Your task to perform on an android device: Search for the new ikea dresser Image 0: 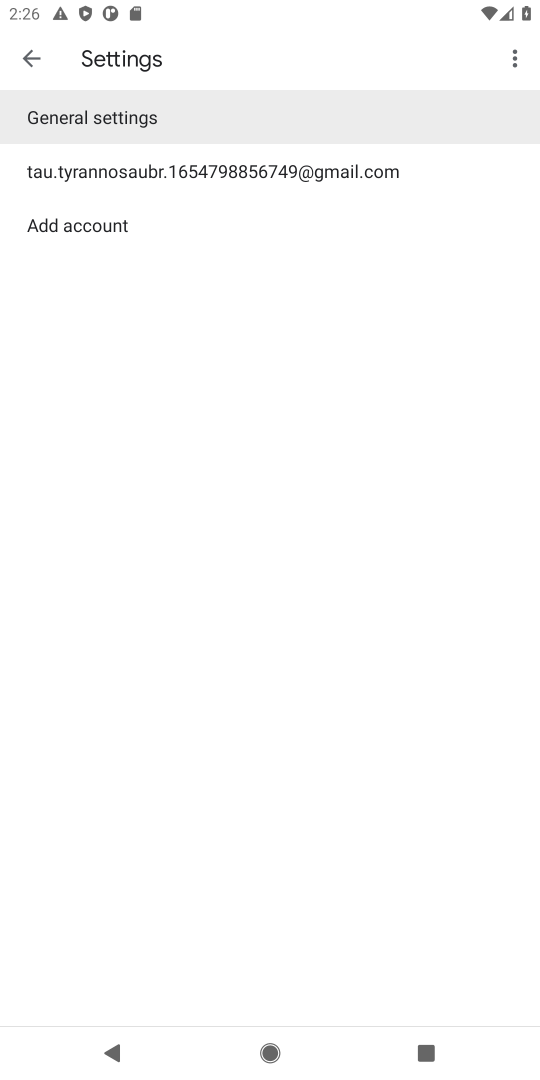
Step 0: press home button
Your task to perform on an android device: Search for the new ikea dresser Image 1: 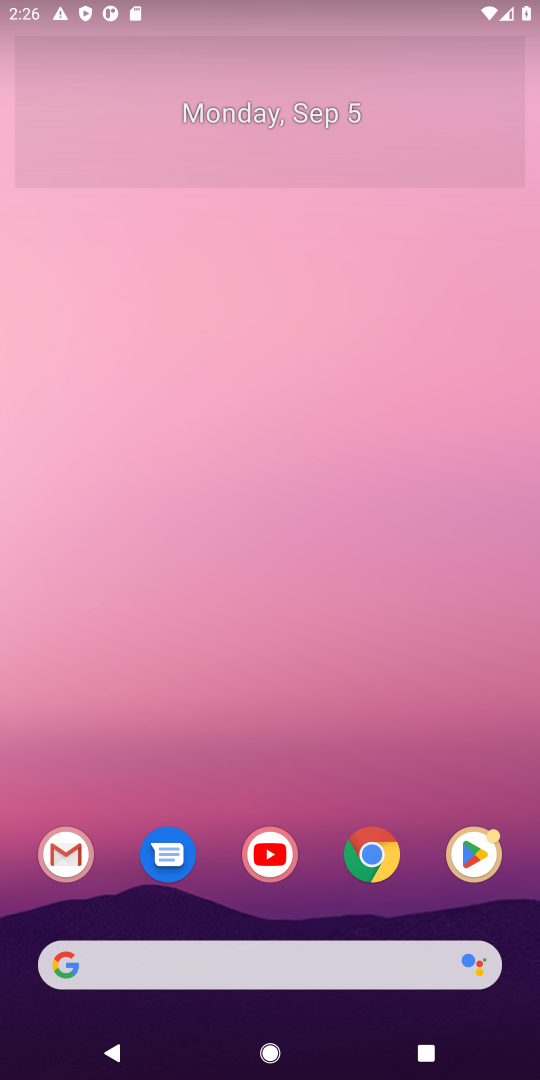
Step 1: click (384, 973)
Your task to perform on an android device: Search for the new ikea dresser Image 2: 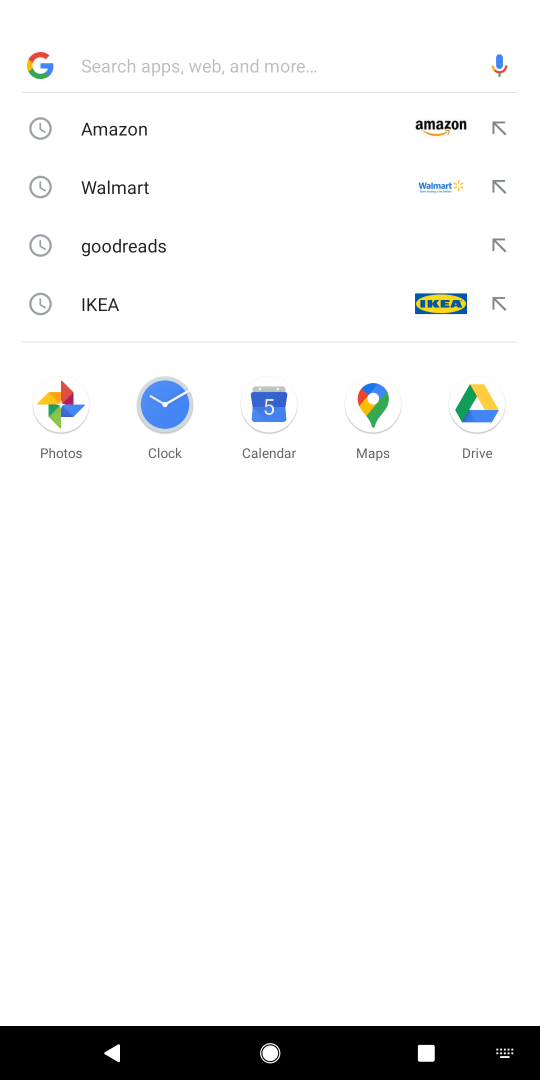
Step 2: type "ikea"
Your task to perform on an android device: Search for the new ikea dresser Image 3: 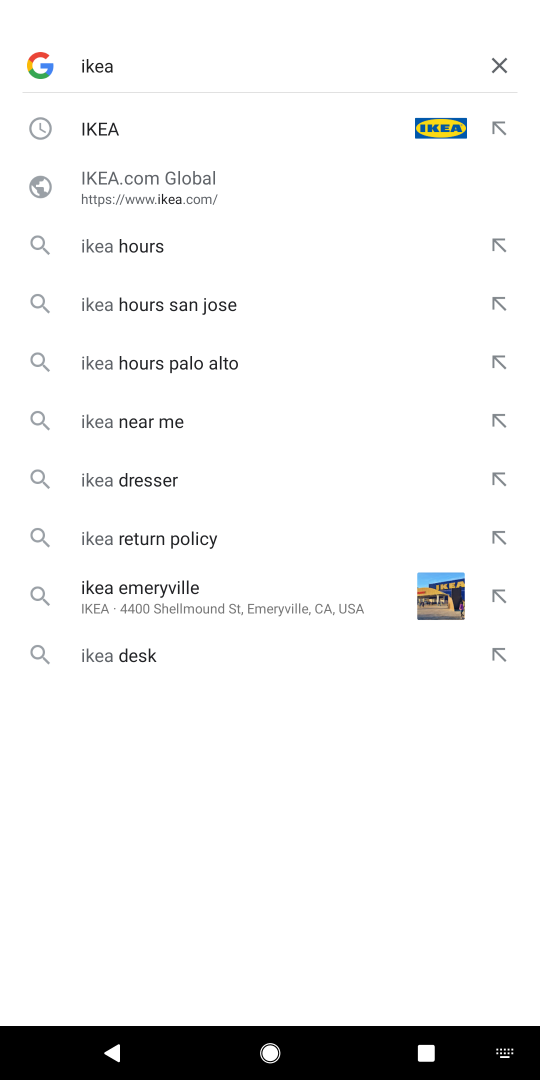
Step 3: press enter
Your task to perform on an android device: Search for the new ikea dresser Image 4: 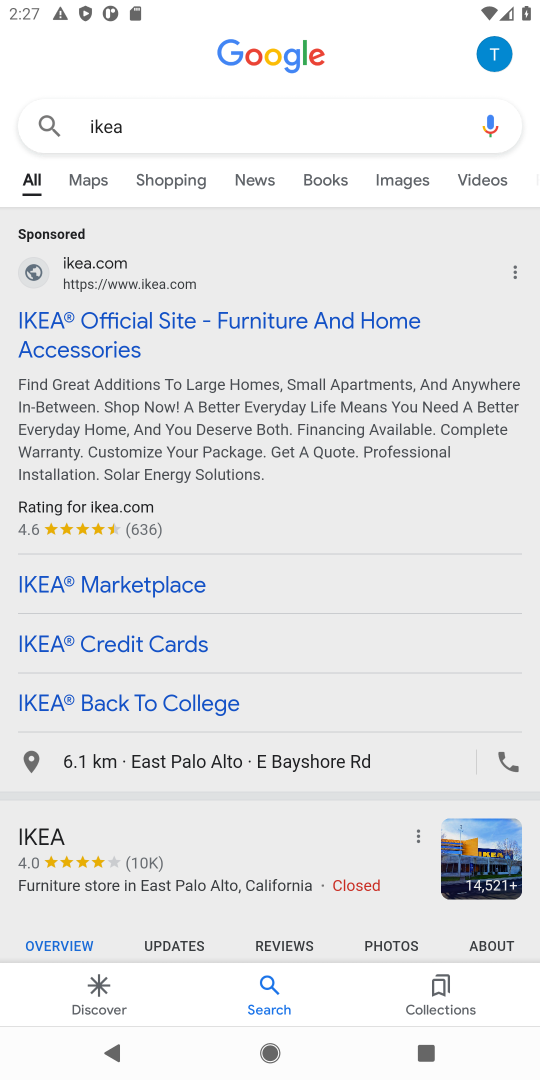
Step 4: click (334, 316)
Your task to perform on an android device: Search for the new ikea dresser Image 5: 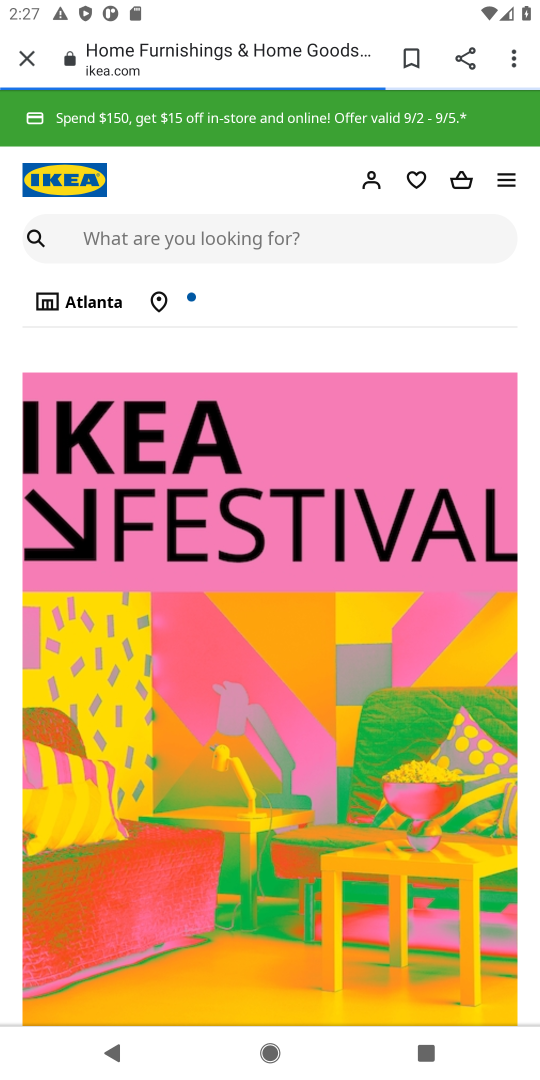
Step 5: click (306, 247)
Your task to perform on an android device: Search for the new ikea dresser Image 6: 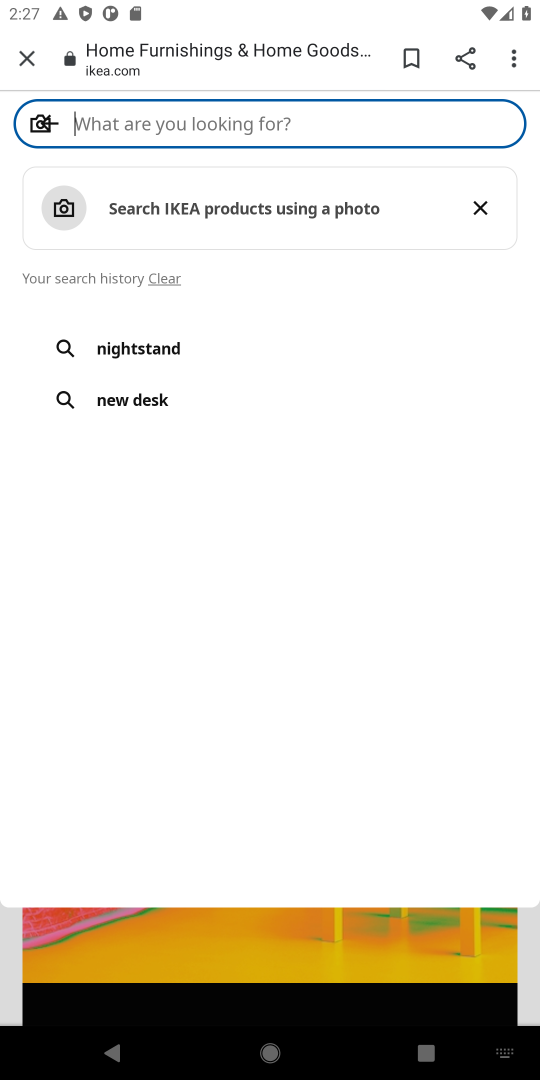
Step 6: type "dresser"
Your task to perform on an android device: Search for the new ikea dresser Image 7: 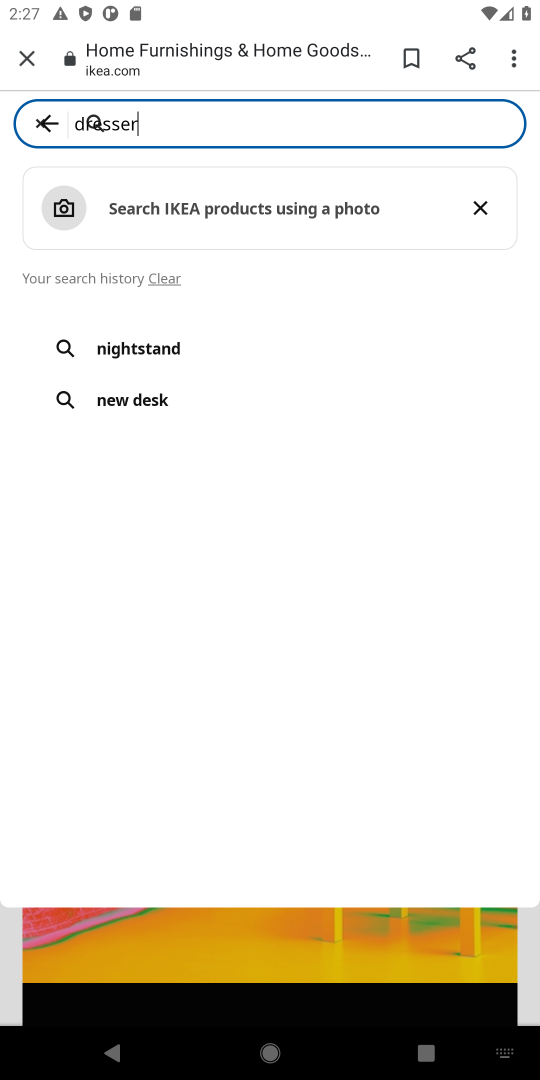
Step 7: press enter
Your task to perform on an android device: Search for the new ikea dresser Image 8: 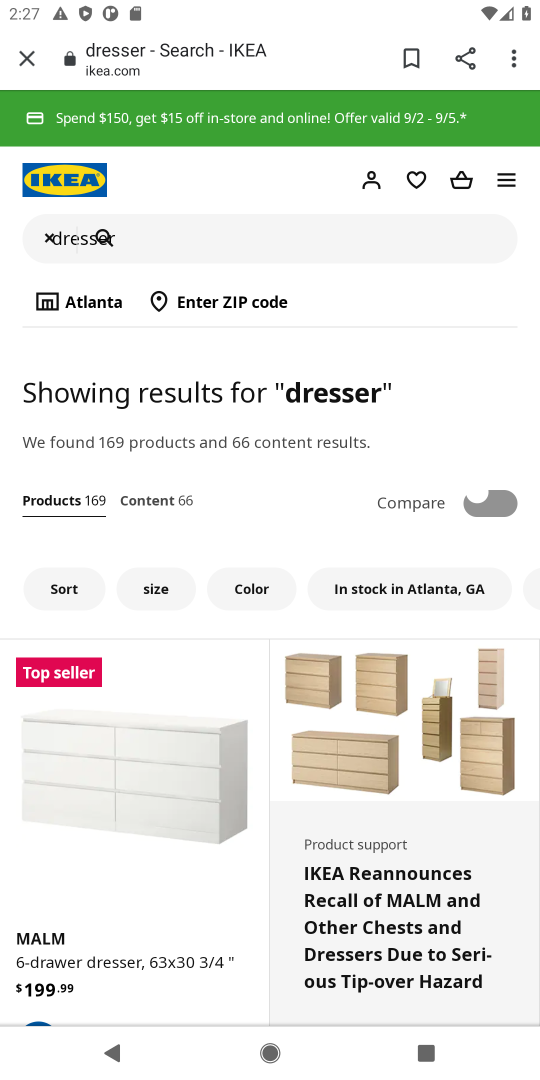
Step 8: task complete